Your task to perform on an android device: check storage Image 0: 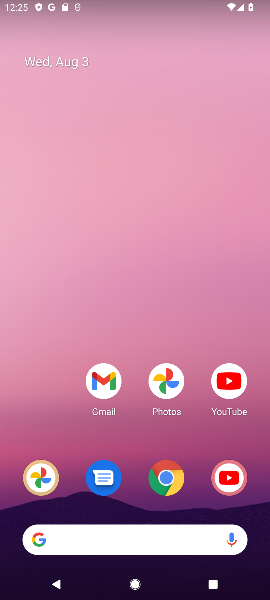
Step 0: drag from (119, 446) to (121, 92)
Your task to perform on an android device: check storage Image 1: 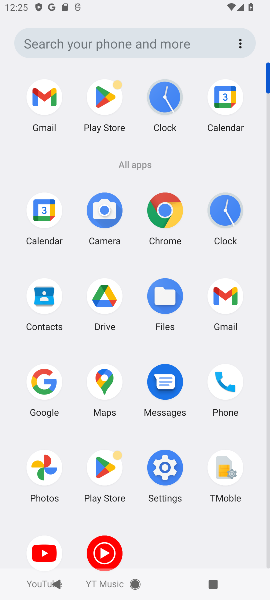
Step 1: click (162, 467)
Your task to perform on an android device: check storage Image 2: 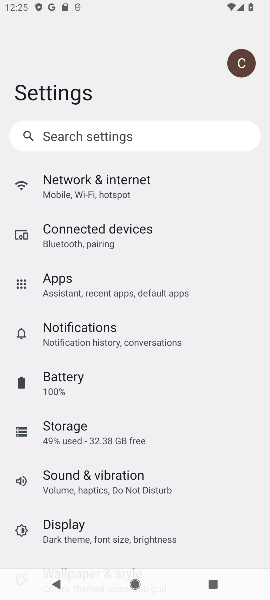
Step 2: drag from (80, 489) to (109, 227)
Your task to perform on an android device: check storage Image 3: 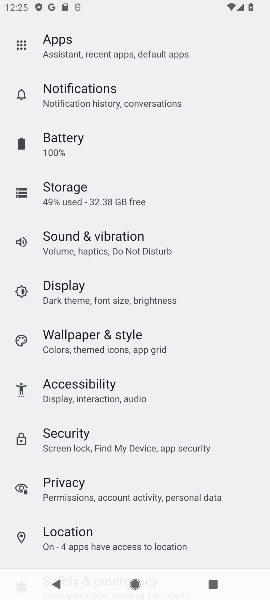
Step 3: click (77, 191)
Your task to perform on an android device: check storage Image 4: 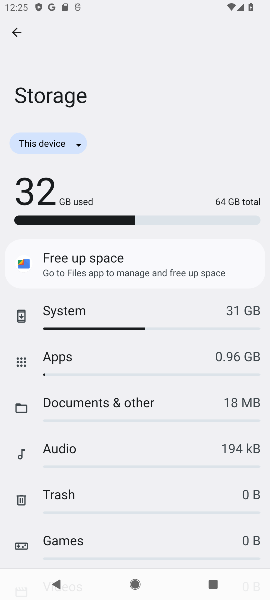
Step 4: task complete